Your task to perform on an android device: toggle notifications settings in the gmail app Image 0: 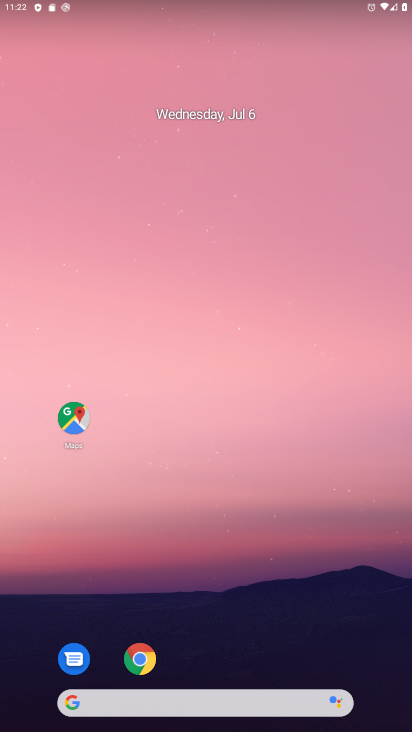
Step 0: drag from (232, 660) to (229, 75)
Your task to perform on an android device: toggle notifications settings in the gmail app Image 1: 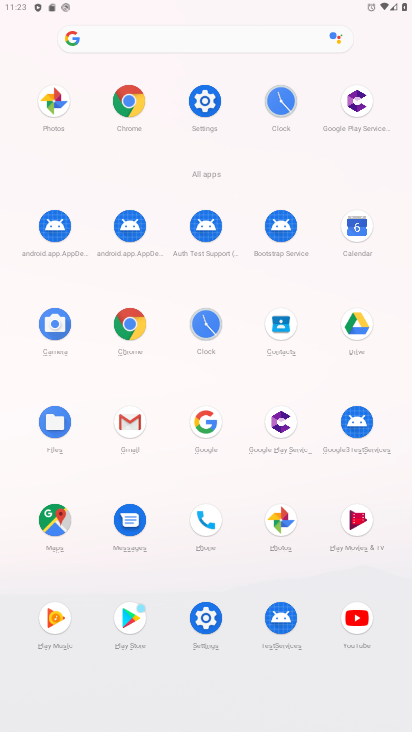
Step 1: click (133, 408)
Your task to perform on an android device: toggle notifications settings in the gmail app Image 2: 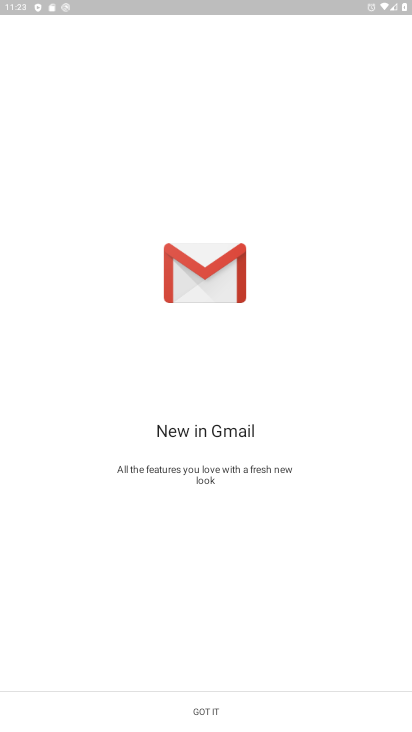
Step 2: click (209, 713)
Your task to perform on an android device: toggle notifications settings in the gmail app Image 3: 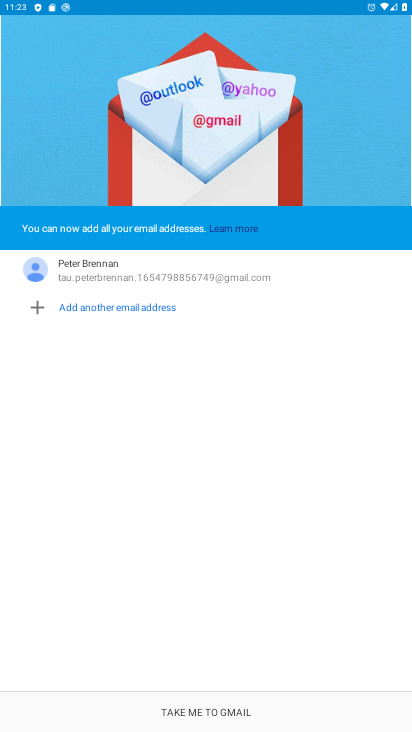
Step 3: click (171, 700)
Your task to perform on an android device: toggle notifications settings in the gmail app Image 4: 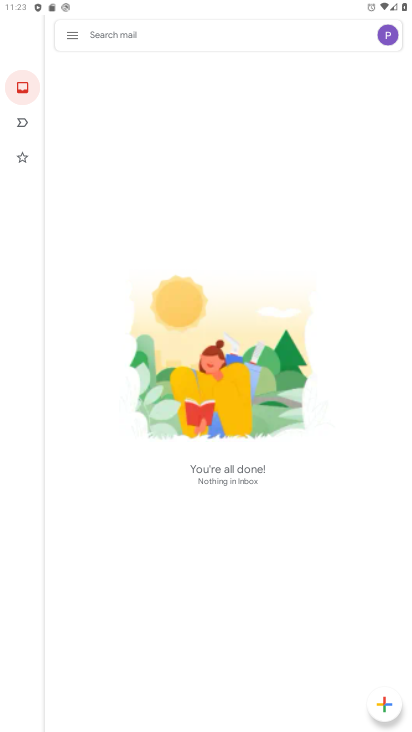
Step 4: click (70, 32)
Your task to perform on an android device: toggle notifications settings in the gmail app Image 5: 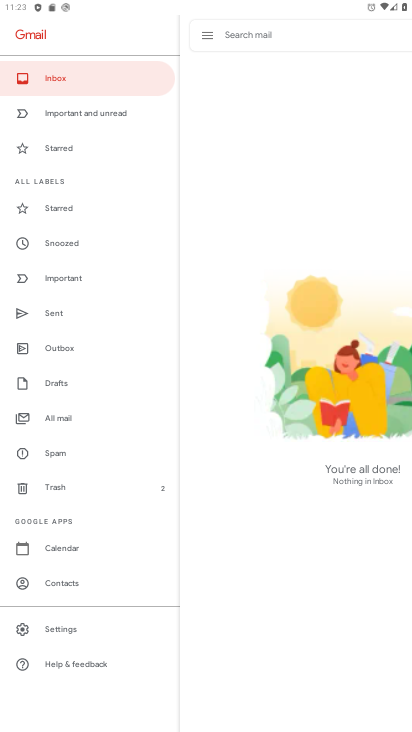
Step 5: click (73, 635)
Your task to perform on an android device: toggle notifications settings in the gmail app Image 6: 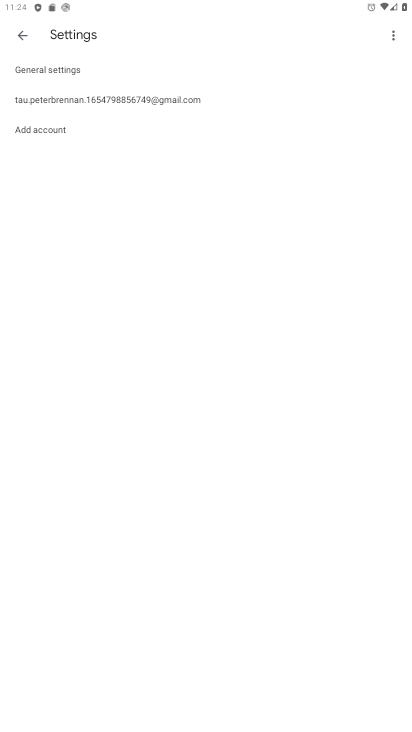
Step 6: click (145, 112)
Your task to perform on an android device: toggle notifications settings in the gmail app Image 7: 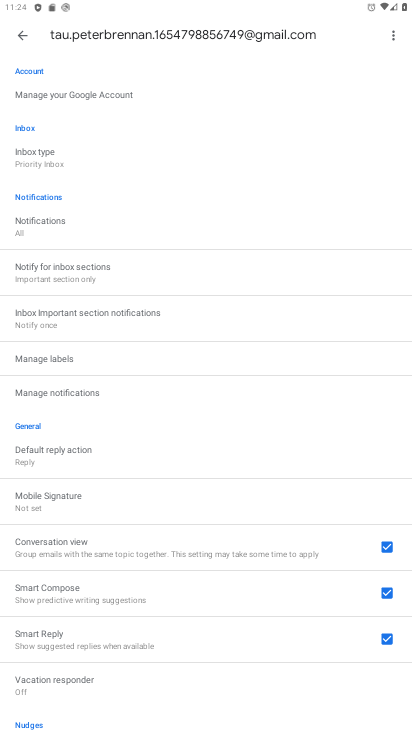
Step 7: click (132, 230)
Your task to perform on an android device: toggle notifications settings in the gmail app Image 8: 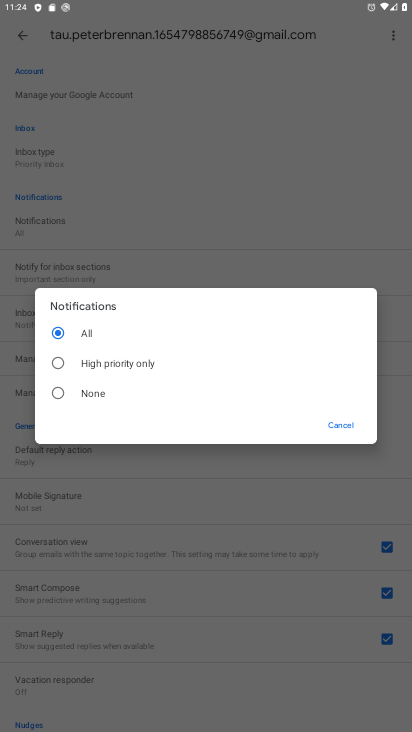
Step 8: click (131, 350)
Your task to perform on an android device: toggle notifications settings in the gmail app Image 9: 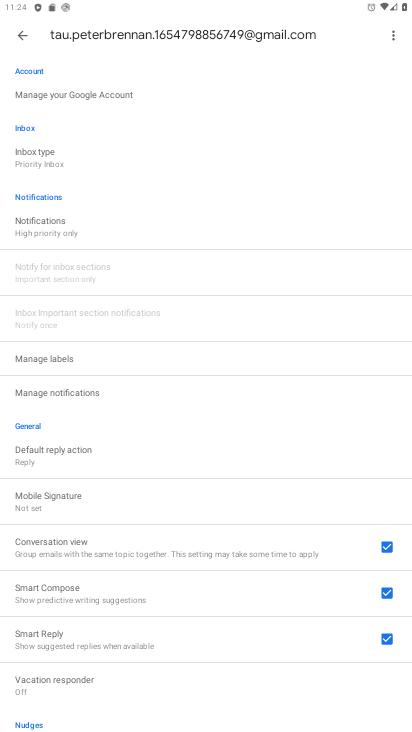
Step 9: task complete